Your task to perform on an android device: turn on translation in the chrome app Image 0: 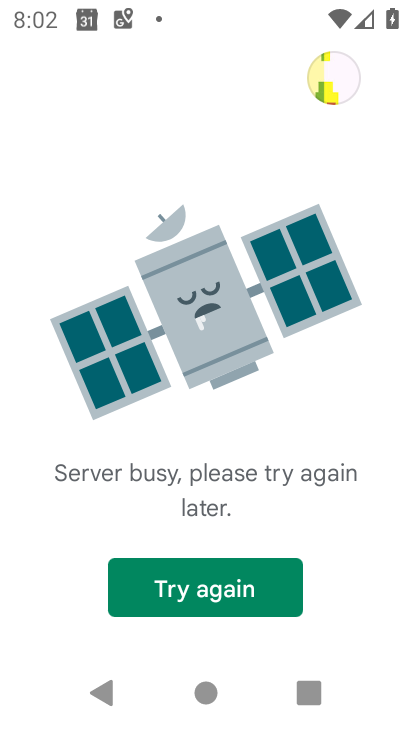
Step 0: press back button
Your task to perform on an android device: turn on translation in the chrome app Image 1: 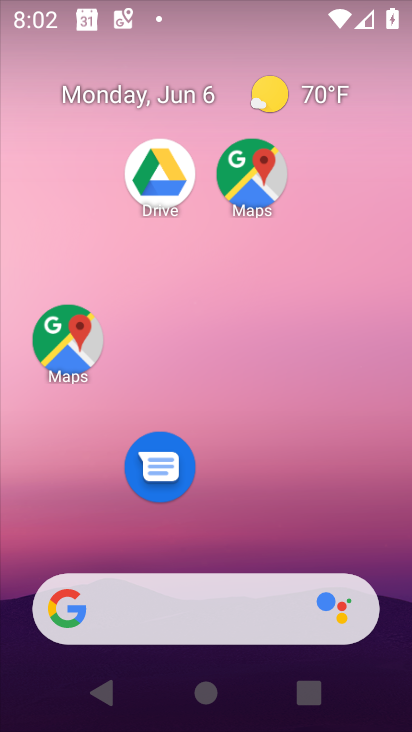
Step 1: drag from (273, 696) to (158, 96)
Your task to perform on an android device: turn on translation in the chrome app Image 2: 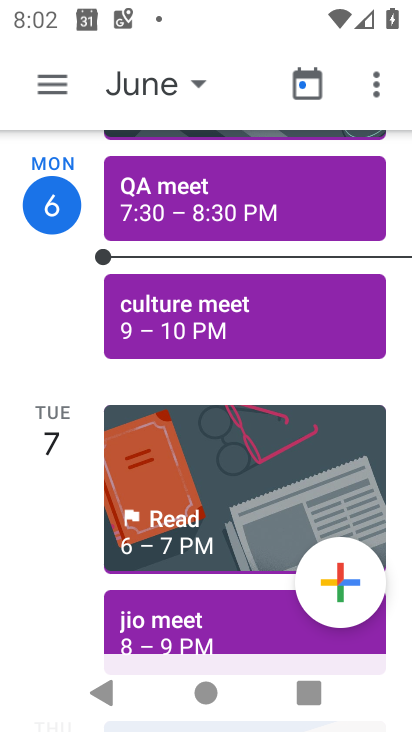
Step 2: press back button
Your task to perform on an android device: turn on translation in the chrome app Image 3: 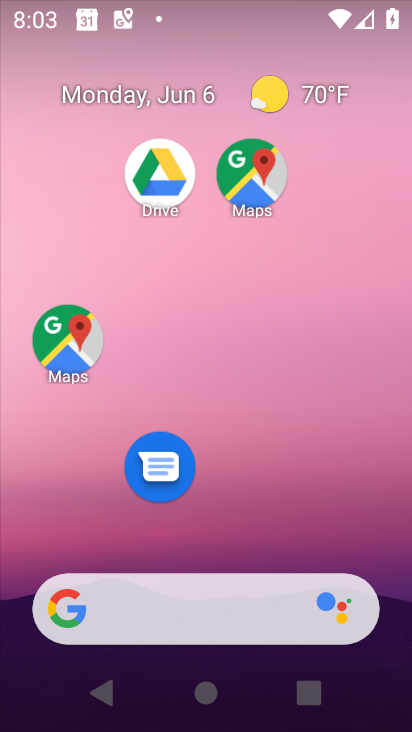
Step 3: drag from (213, 656) to (113, 113)
Your task to perform on an android device: turn on translation in the chrome app Image 4: 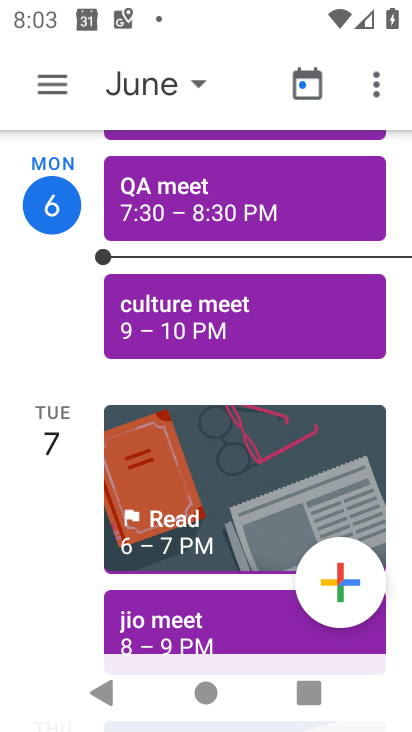
Step 4: press home button
Your task to perform on an android device: turn on translation in the chrome app Image 5: 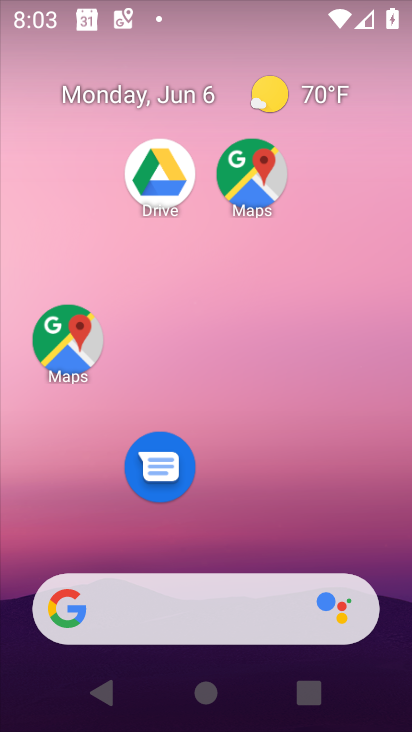
Step 5: drag from (265, 680) to (179, 148)
Your task to perform on an android device: turn on translation in the chrome app Image 6: 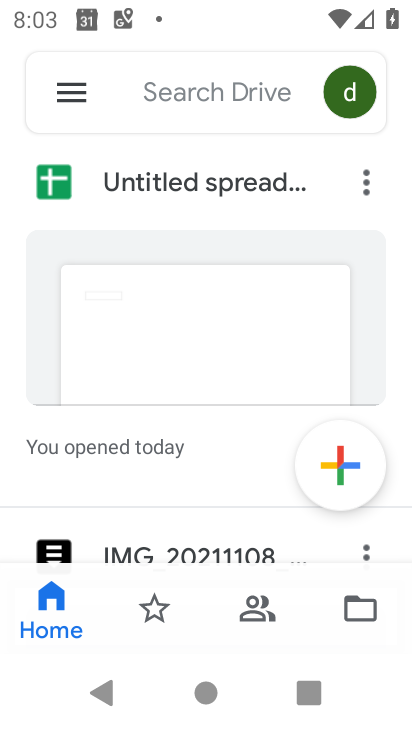
Step 6: drag from (270, 656) to (194, 300)
Your task to perform on an android device: turn on translation in the chrome app Image 7: 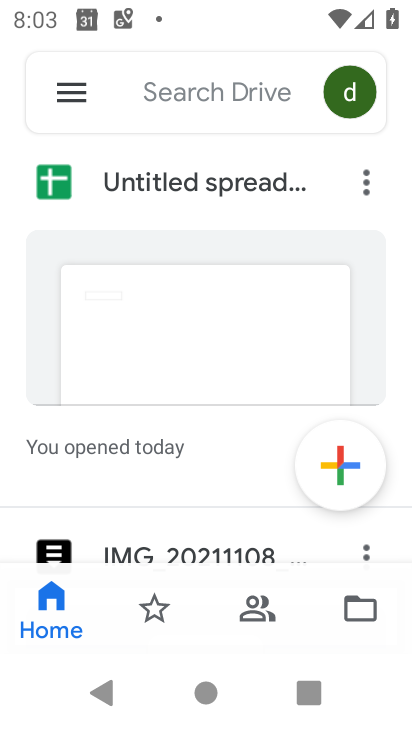
Step 7: press back button
Your task to perform on an android device: turn on translation in the chrome app Image 8: 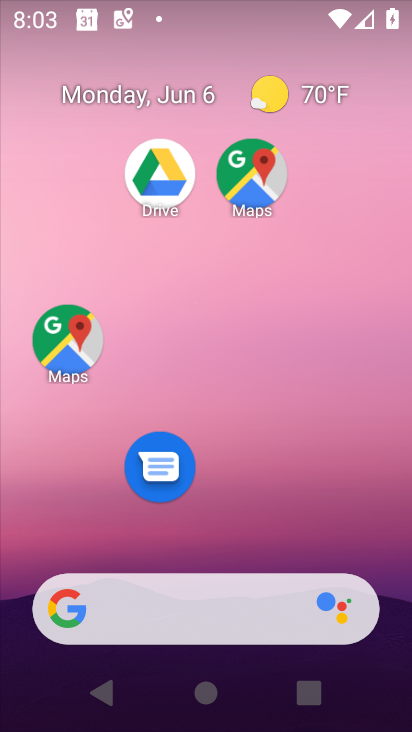
Step 8: drag from (281, 704) to (193, 144)
Your task to perform on an android device: turn on translation in the chrome app Image 9: 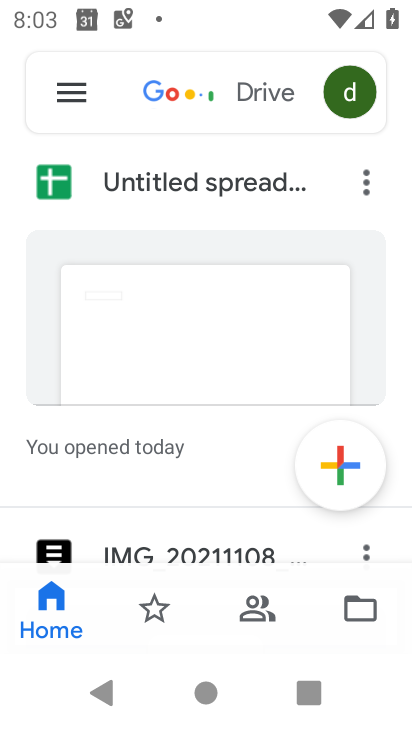
Step 9: press back button
Your task to perform on an android device: turn on translation in the chrome app Image 10: 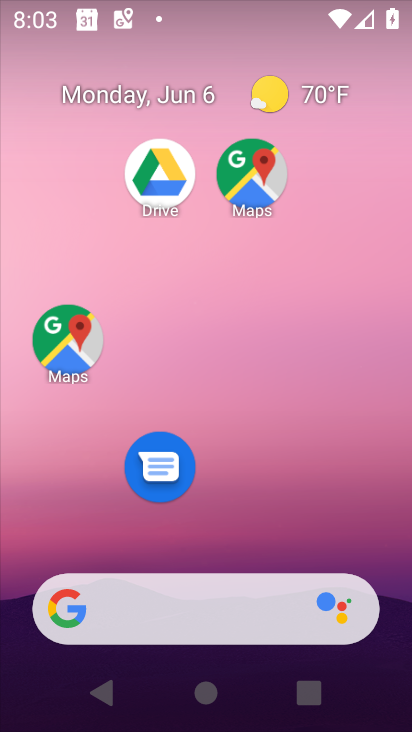
Step 10: drag from (372, 537) to (216, 141)
Your task to perform on an android device: turn on translation in the chrome app Image 11: 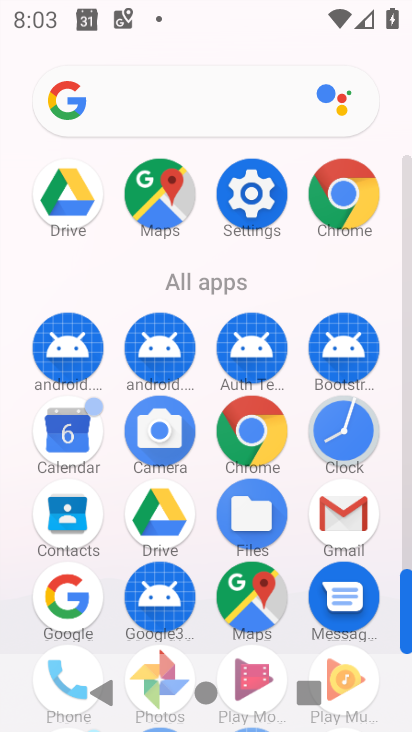
Step 11: click (329, 196)
Your task to perform on an android device: turn on translation in the chrome app Image 12: 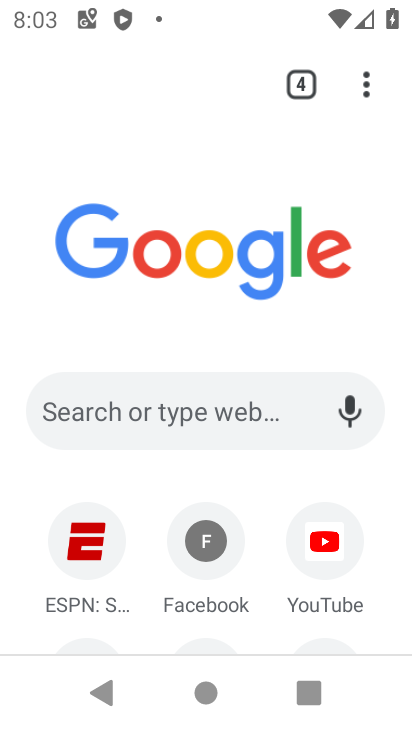
Step 12: drag from (355, 87) to (124, 582)
Your task to perform on an android device: turn on translation in the chrome app Image 13: 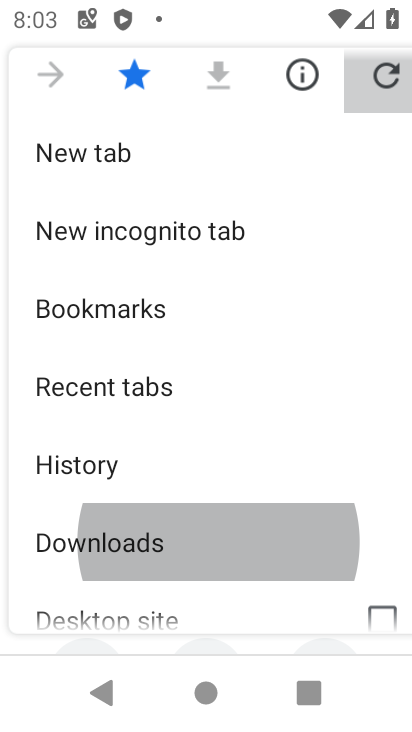
Step 13: drag from (184, 493) to (127, 158)
Your task to perform on an android device: turn on translation in the chrome app Image 14: 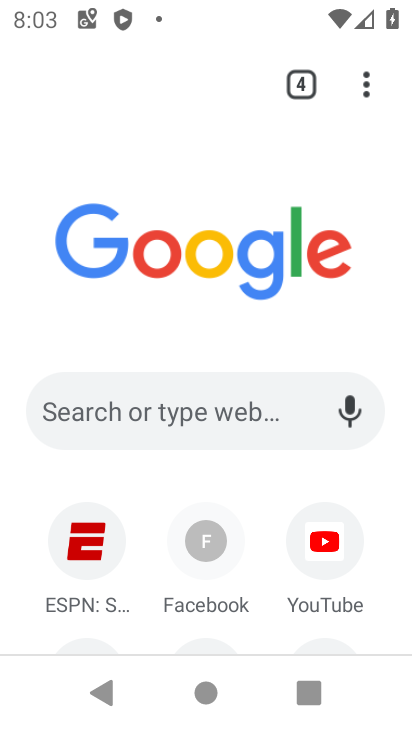
Step 14: drag from (153, 538) to (151, 209)
Your task to perform on an android device: turn on translation in the chrome app Image 15: 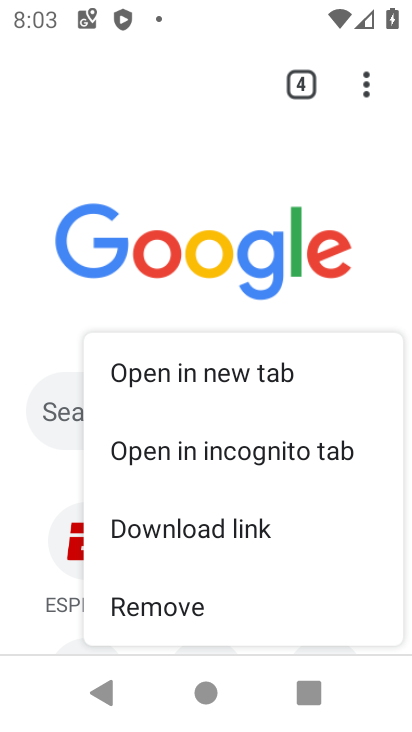
Step 15: drag from (369, 91) to (323, 199)
Your task to perform on an android device: turn on translation in the chrome app Image 16: 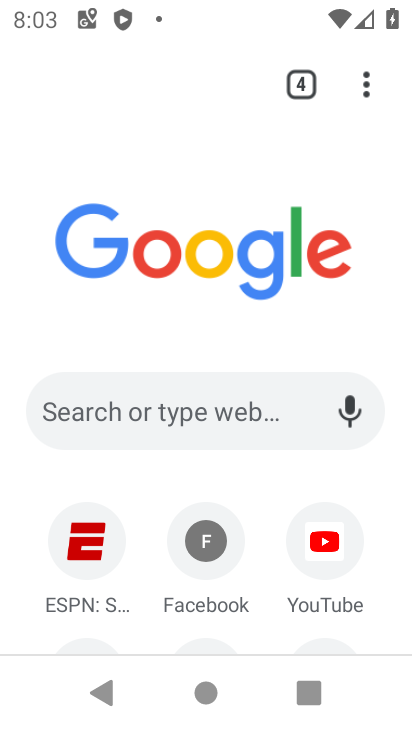
Step 16: click (367, 84)
Your task to perform on an android device: turn on translation in the chrome app Image 17: 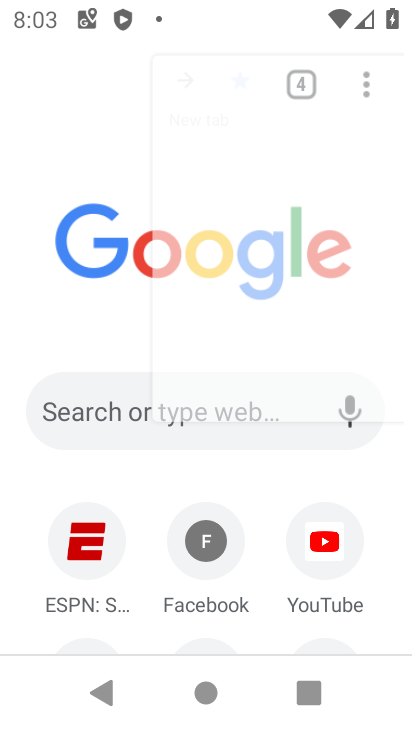
Step 17: click (367, 84)
Your task to perform on an android device: turn on translation in the chrome app Image 18: 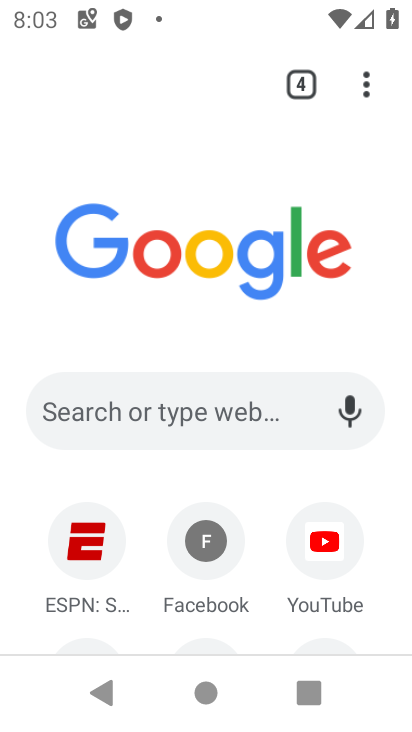
Step 18: drag from (371, 89) to (225, 499)
Your task to perform on an android device: turn on translation in the chrome app Image 19: 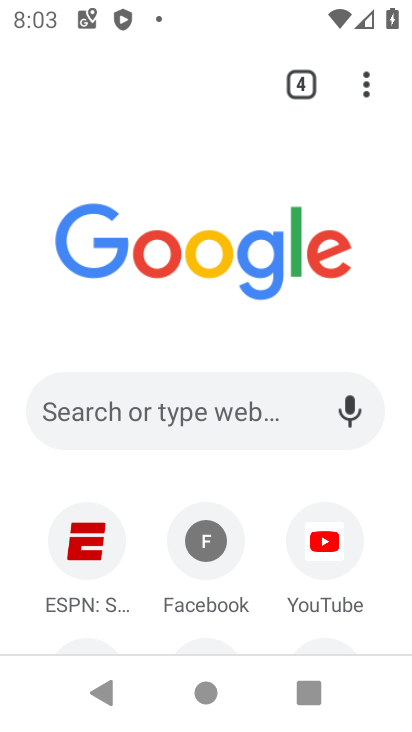
Step 19: drag from (363, 93) to (91, 531)
Your task to perform on an android device: turn on translation in the chrome app Image 20: 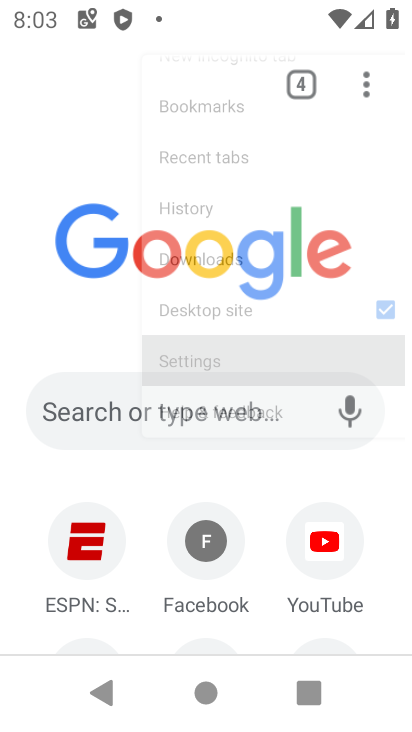
Step 20: click (96, 530)
Your task to perform on an android device: turn on translation in the chrome app Image 21: 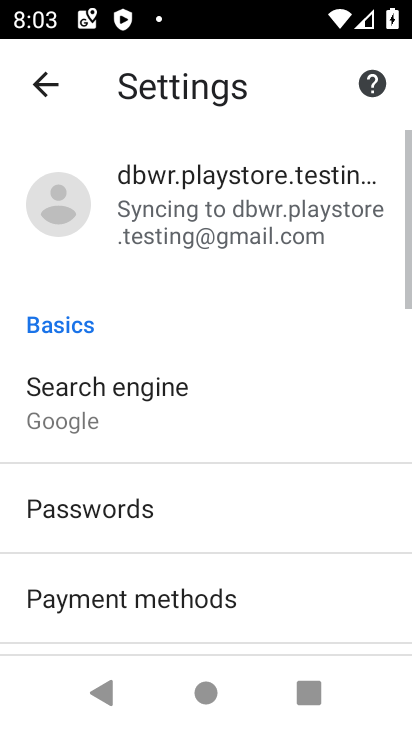
Step 21: drag from (194, 472) to (190, 221)
Your task to perform on an android device: turn on translation in the chrome app Image 22: 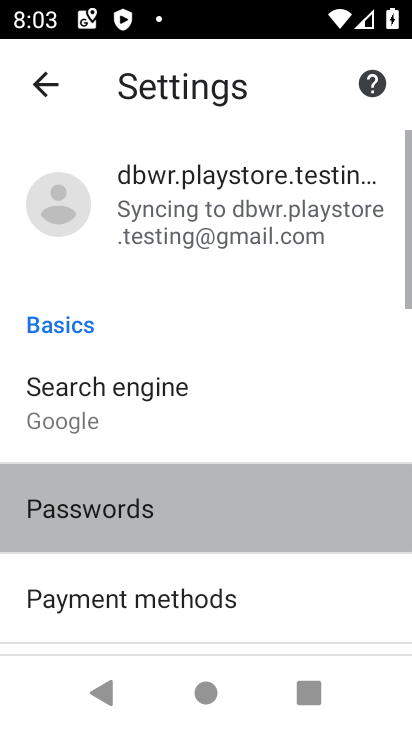
Step 22: drag from (204, 452) to (200, 145)
Your task to perform on an android device: turn on translation in the chrome app Image 23: 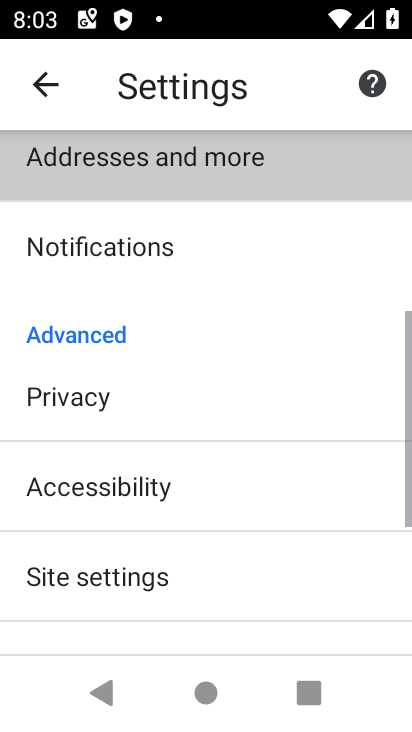
Step 23: drag from (155, 472) to (159, 180)
Your task to perform on an android device: turn on translation in the chrome app Image 24: 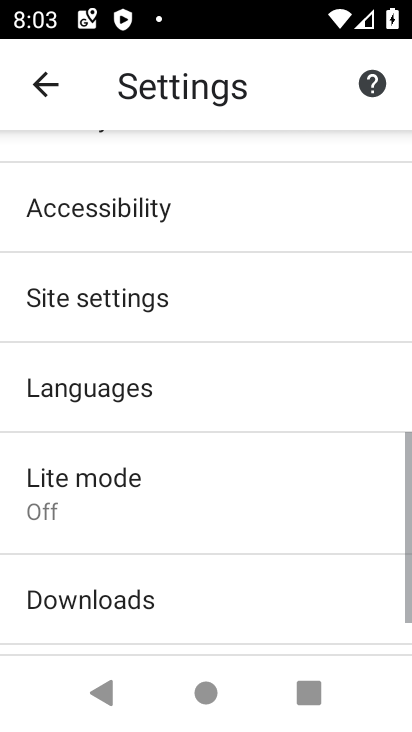
Step 24: click (84, 391)
Your task to perform on an android device: turn on translation in the chrome app Image 25: 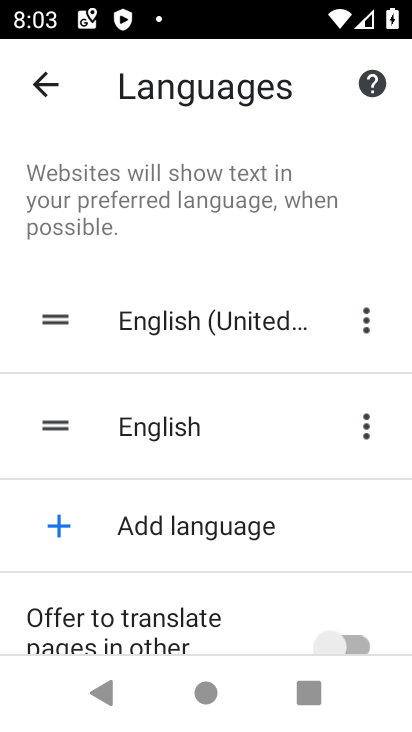
Step 25: drag from (259, 603) to (235, 392)
Your task to perform on an android device: turn on translation in the chrome app Image 26: 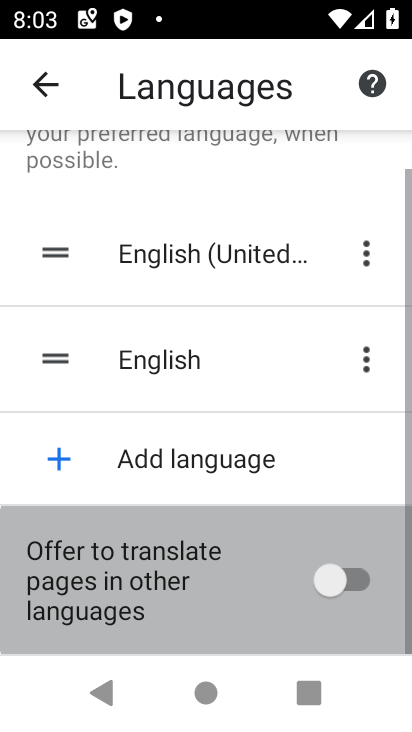
Step 26: drag from (307, 585) to (246, 287)
Your task to perform on an android device: turn on translation in the chrome app Image 27: 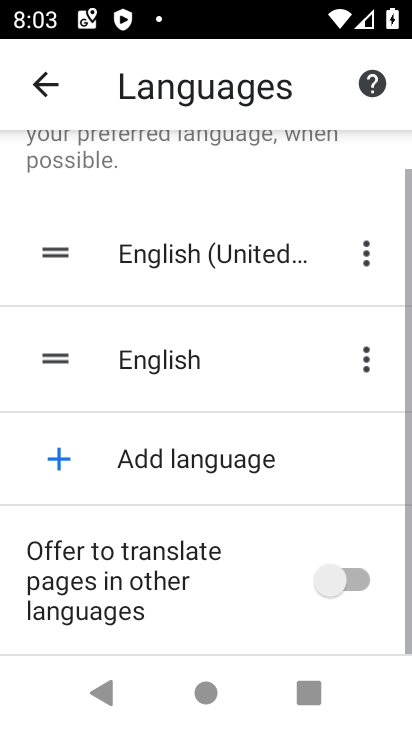
Step 27: click (347, 579)
Your task to perform on an android device: turn on translation in the chrome app Image 28: 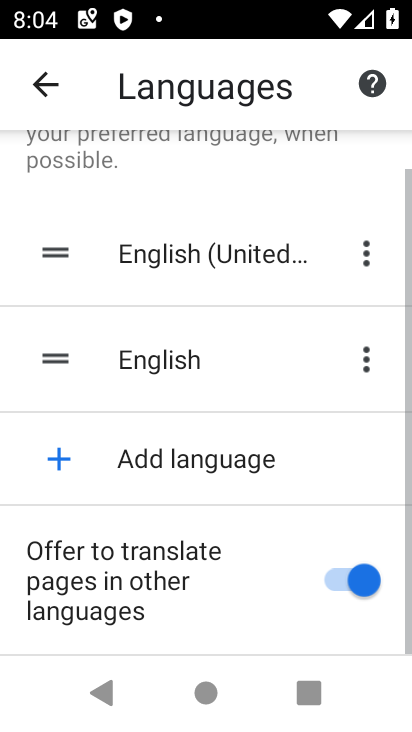
Step 28: task complete